Your task to perform on an android device: Open settings Image 0: 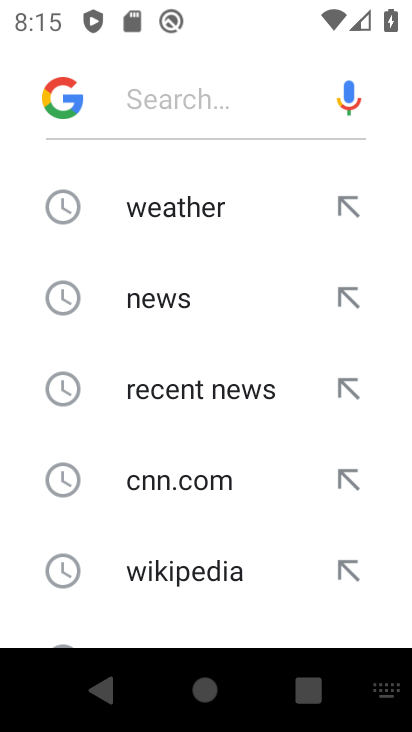
Step 0: press home button
Your task to perform on an android device: Open settings Image 1: 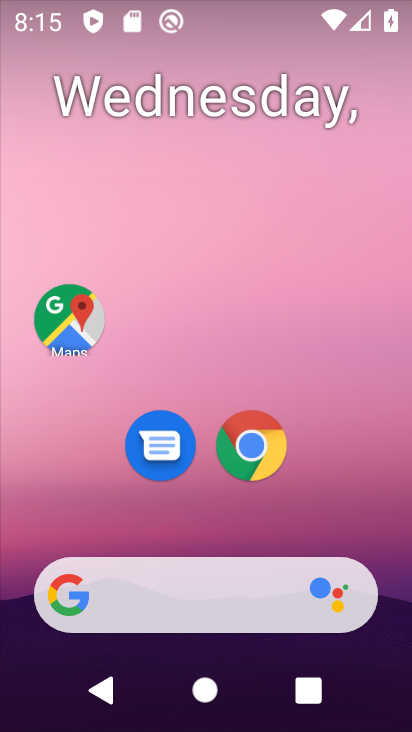
Step 1: drag from (233, 710) to (236, 42)
Your task to perform on an android device: Open settings Image 2: 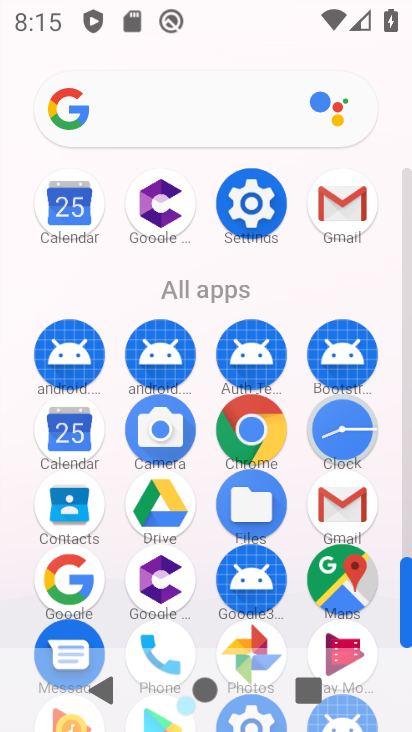
Step 2: click (250, 205)
Your task to perform on an android device: Open settings Image 3: 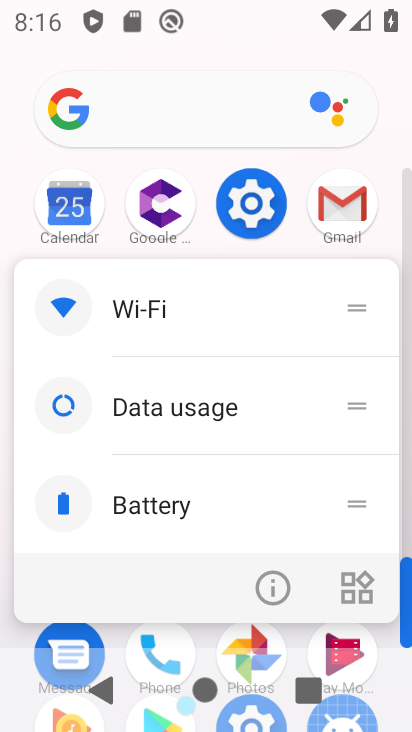
Step 3: click (254, 207)
Your task to perform on an android device: Open settings Image 4: 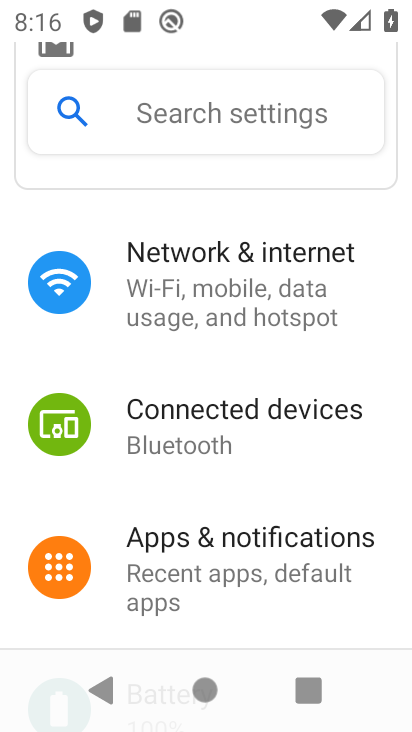
Step 4: task complete